Your task to perform on an android device: What's on my calendar today? Image 0: 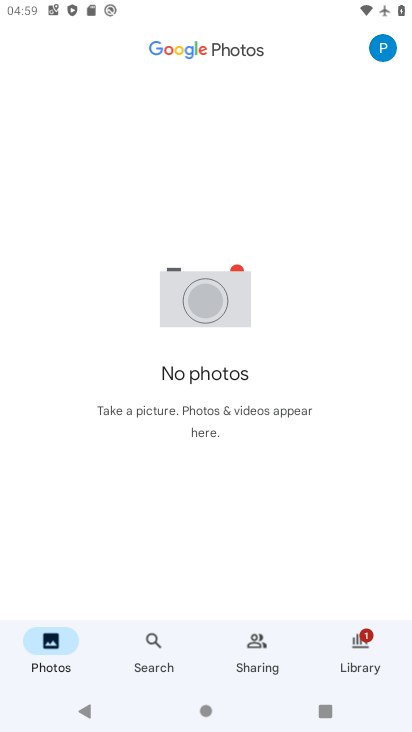
Step 0: press home button
Your task to perform on an android device: What's on my calendar today? Image 1: 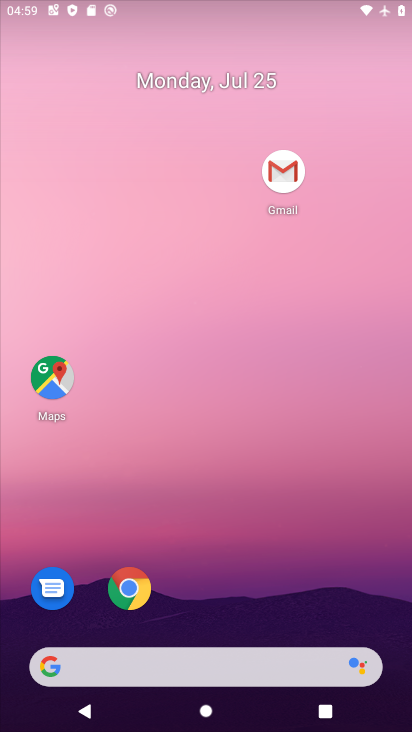
Step 1: drag from (325, 624) to (269, 57)
Your task to perform on an android device: What's on my calendar today? Image 2: 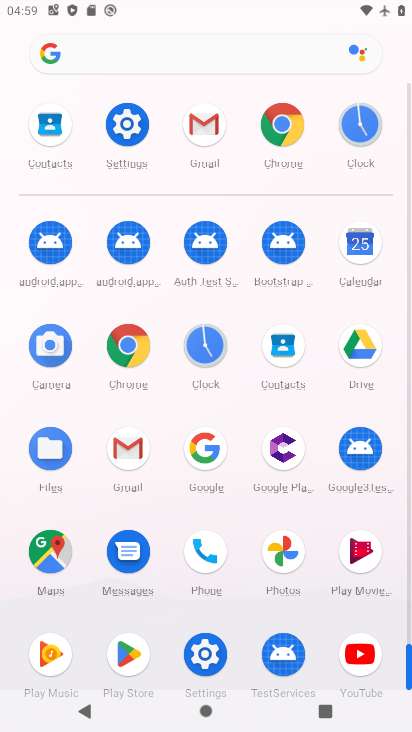
Step 2: click (356, 248)
Your task to perform on an android device: What's on my calendar today? Image 3: 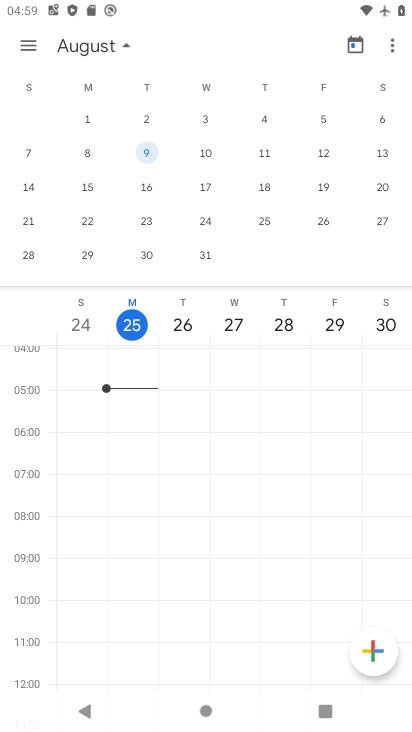
Step 3: task complete